Your task to perform on an android device: add a contact Image 0: 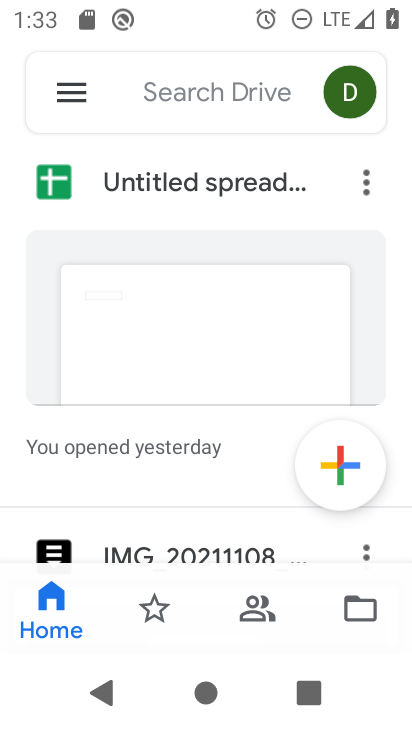
Step 0: press home button
Your task to perform on an android device: add a contact Image 1: 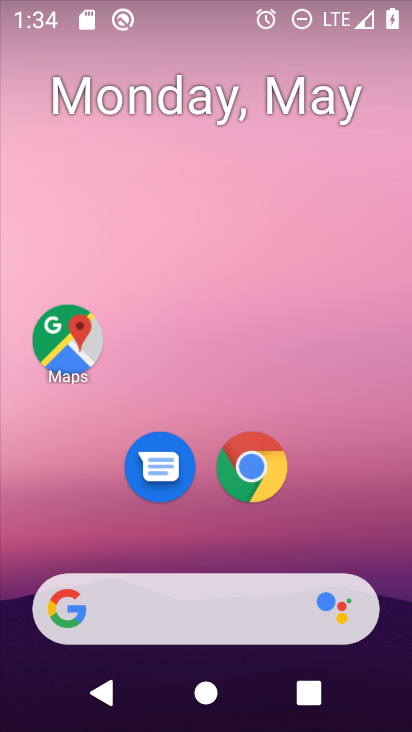
Step 1: drag from (330, 558) to (349, 20)
Your task to perform on an android device: add a contact Image 2: 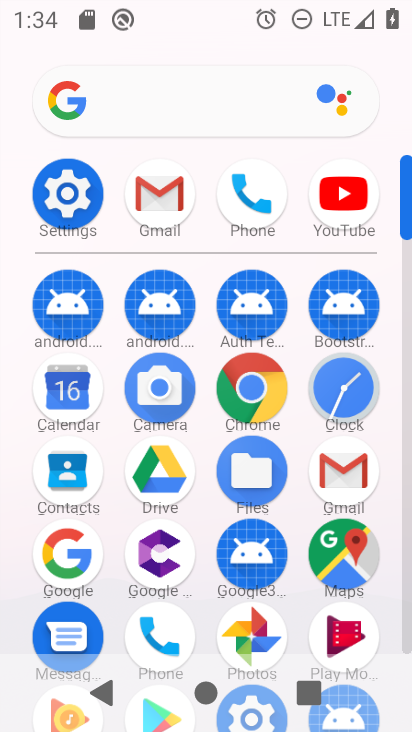
Step 2: click (65, 476)
Your task to perform on an android device: add a contact Image 3: 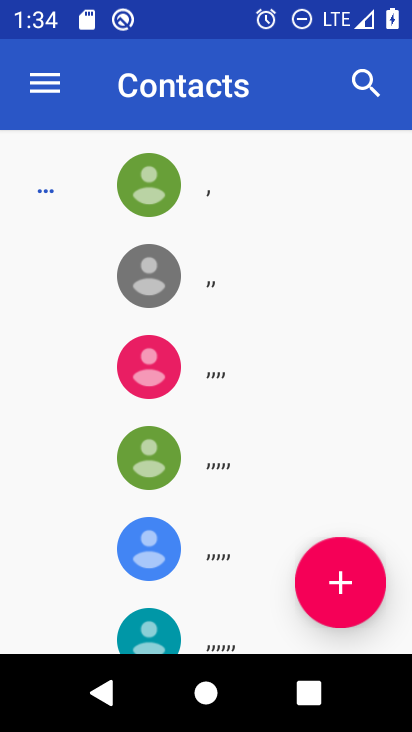
Step 3: click (353, 583)
Your task to perform on an android device: add a contact Image 4: 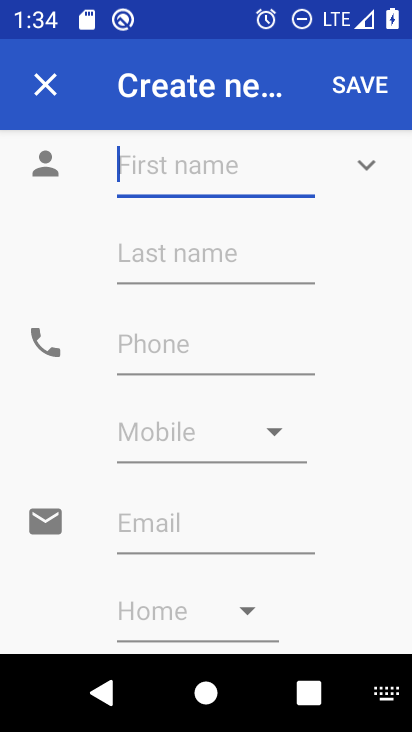
Step 4: type "navya"
Your task to perform on an android device: add a contact Image 5: 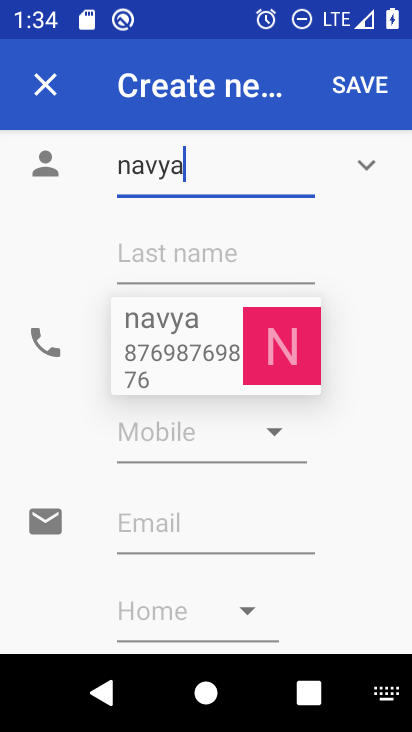
Step 5: click (155, 360)
Your task to perform on an android device: add a contact Image 6: 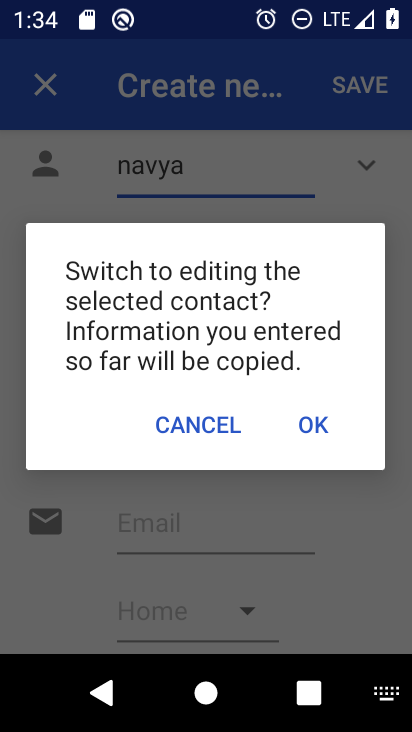
Step 6: click (368, 355)
Your task to perform on an android device: add a contact Image 7: 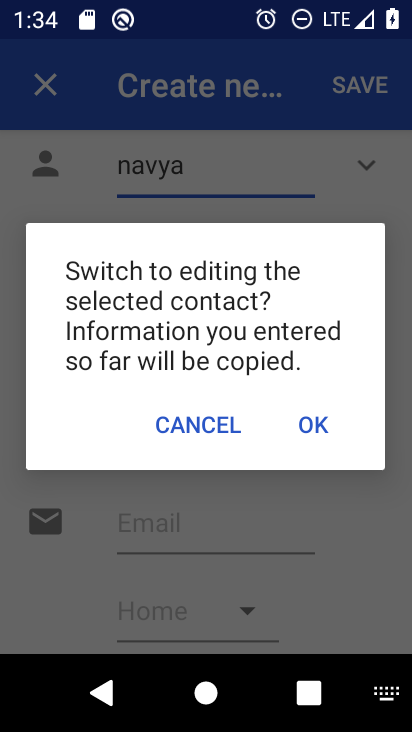
Step 7: click (219, 418)
Your task to perform on an android device: add a contact Image 8: 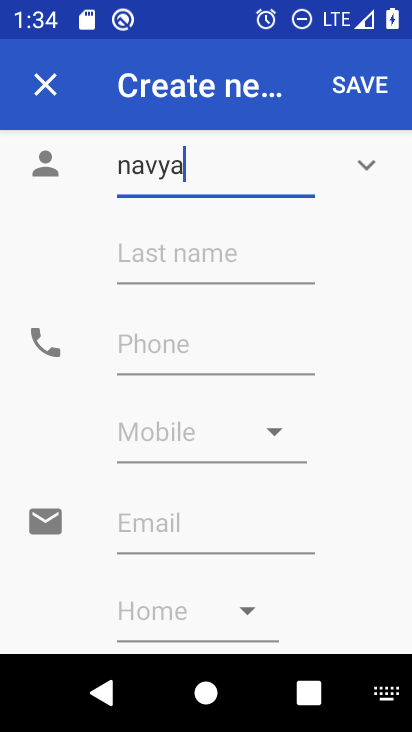
Step 8: click (167, 361)
Your task to perform on an android device: add a contact Image 9: 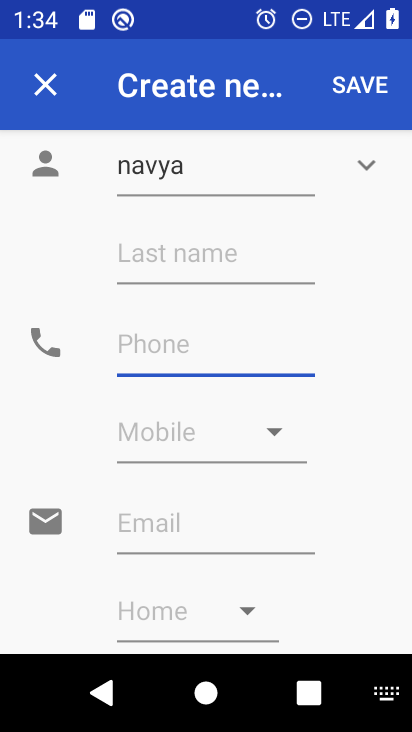
Step 9: type "857586877"
Your task to perform on an android device: add a contact Image 10: 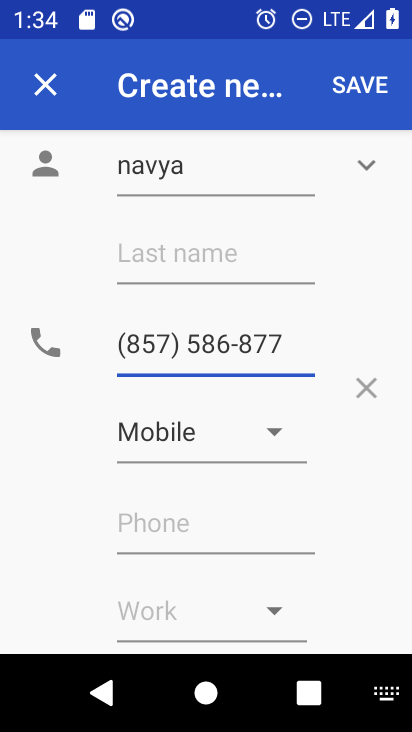
Step 10: click (358, 91)
Your task to perform on an android device: add a contact Image 11: 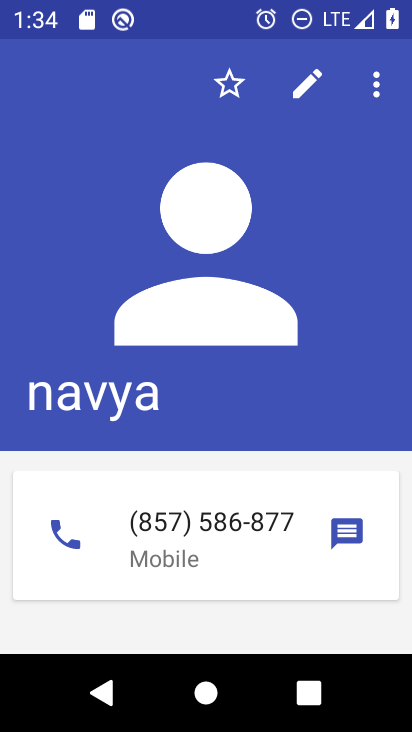
Step 11: task complete